Your task to perform on an android device: open sync settings in chrome Image 0: 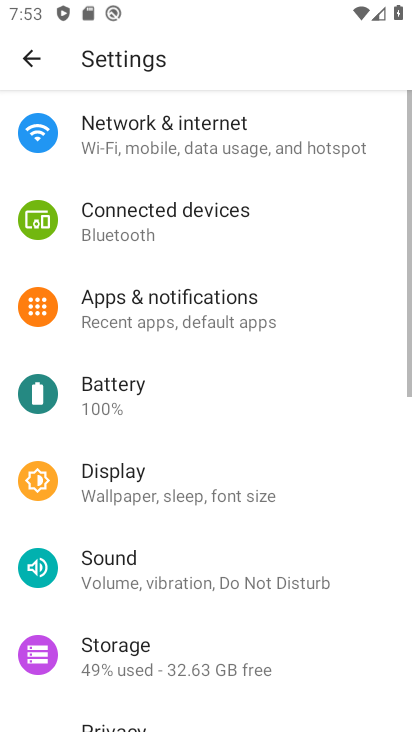
Step 0: press home button
Your task to perform on an android device: open sync settings in chrome Image 1: 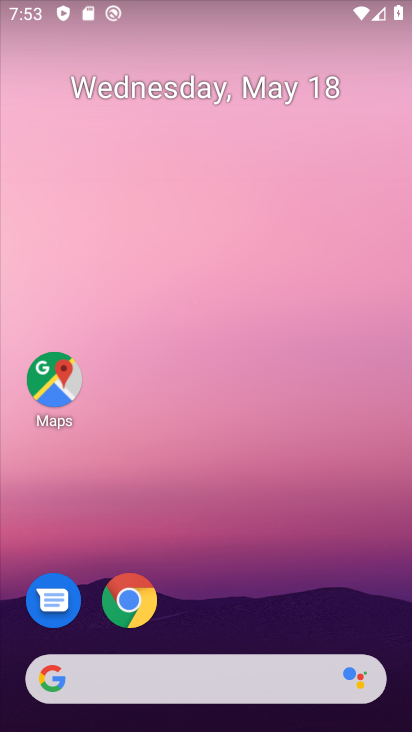
Step 1: drag from (219, 698) to (121, 163)
Your task to perform on an android device: open sync settings in chrome Image 2: 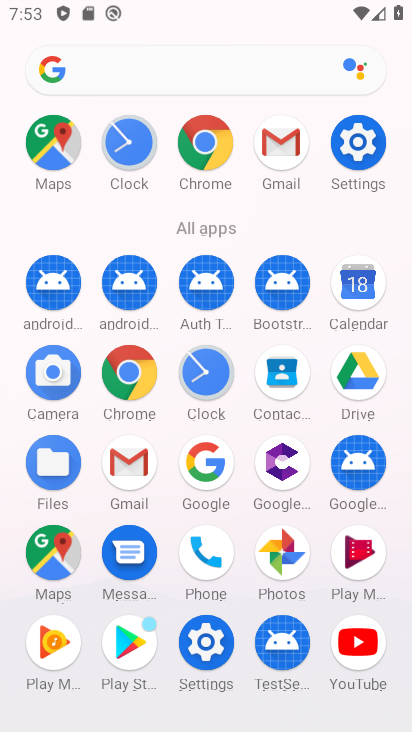
Step 2: click (194, 140)
Your task to perform on an android device: open sync settings in chrome Image 3: 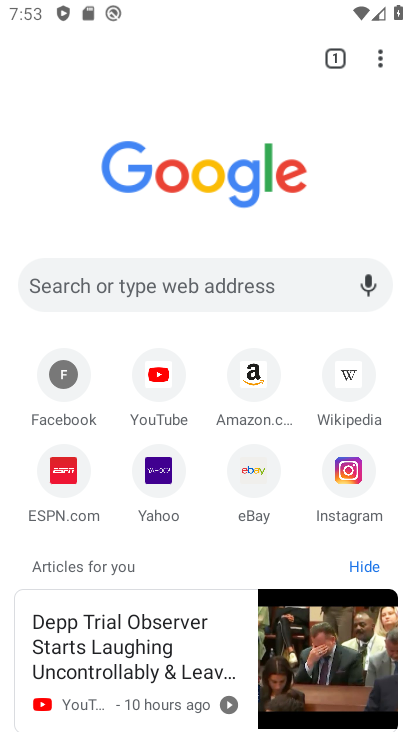
Step 3: click (376, 61)
Your task to perform on an android device: open sync settings in chrome Image 4: 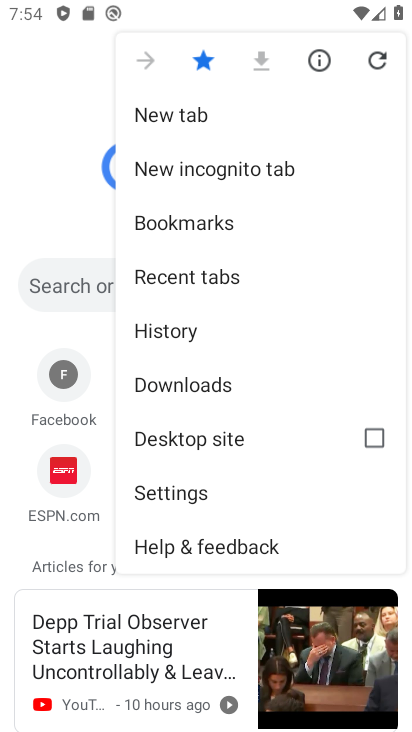
Step 4: click (163, 488)
Your task to perform on an android device: open sync settings in chrome Image 5: 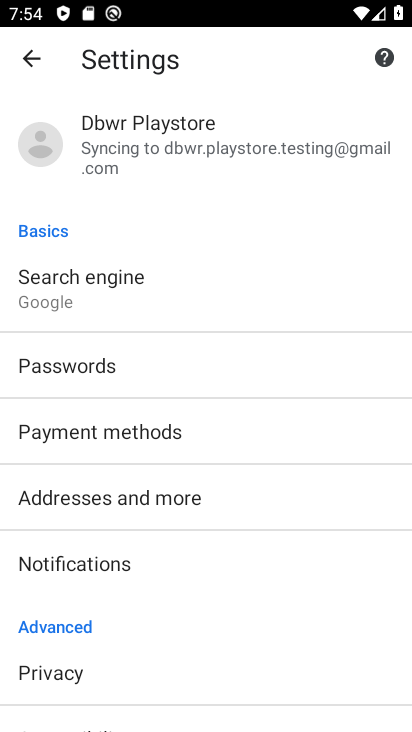
Step 5: drag from (133, 627) to (173, 408)
Your task to perform on an android device: open sync settings in chrome Image 6: 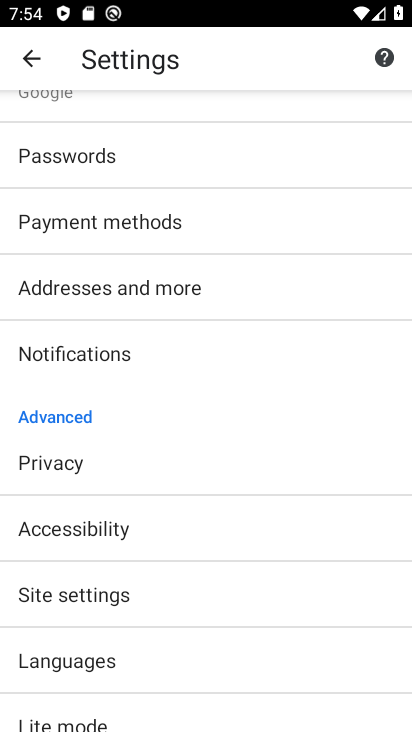
Step 6: click (108, 586)
Your task to perform on an android device: open sync settings in chrome Image 7: 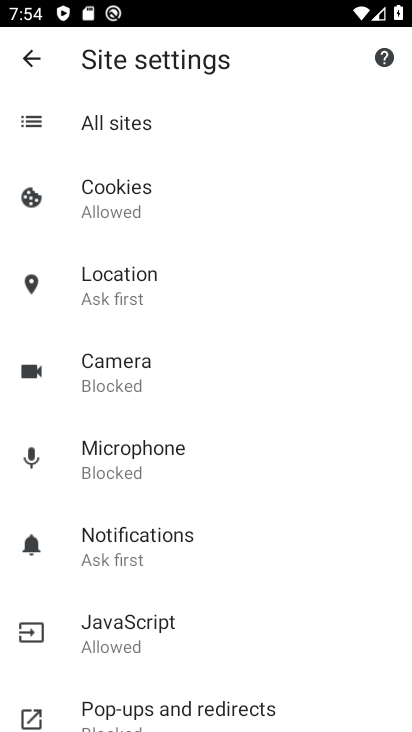
Step 7: drag from (113, 668) to (146, 371)
Your task to perform on an android device: open sync settings in chrome Image 8: 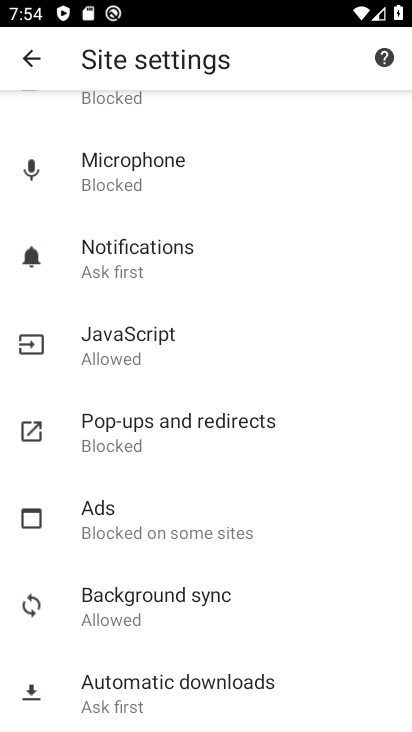
Step 8: click (144, 600)
Your task to perform on an android device: open sync settings in chrome Image 9: 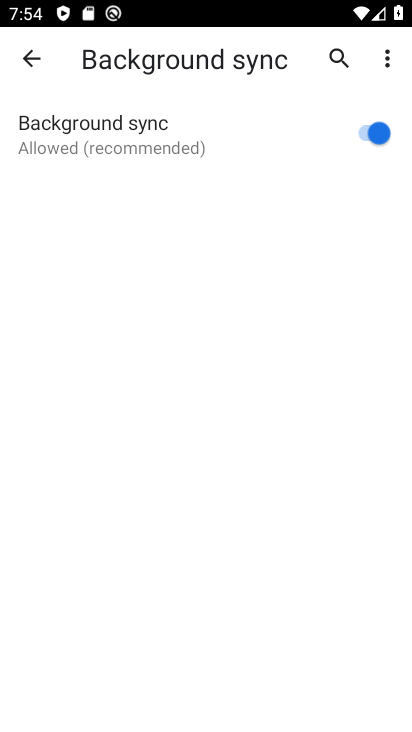
Step 9: task complete